Your task to perform on an android device: toggle pop-ups in chrome Image 0: 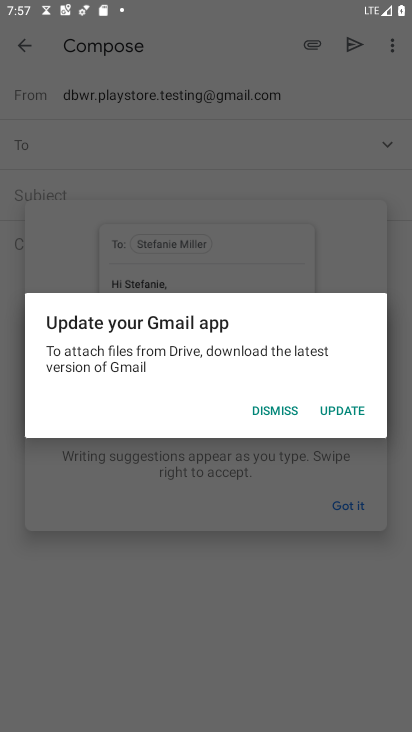
Step 0: press home button
Your task to perform on an android device: toggle pop-ups in chrome Image 1: 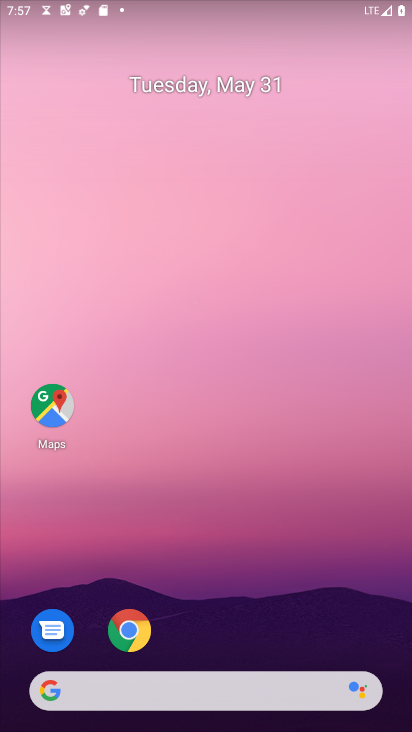
Step 1: click (129, 632)
Your task to perform on an android device: toggle pop-ups in chrome Image 2: 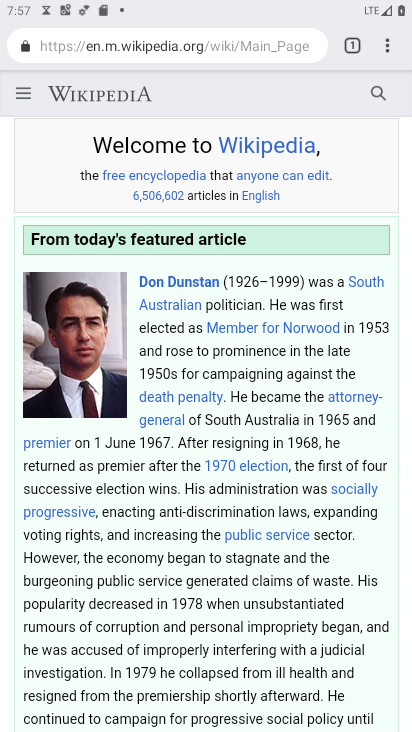
Step 2: click (387, 45)
Your task to perform on an android device: toggle pop-ups in chrome Image 3: 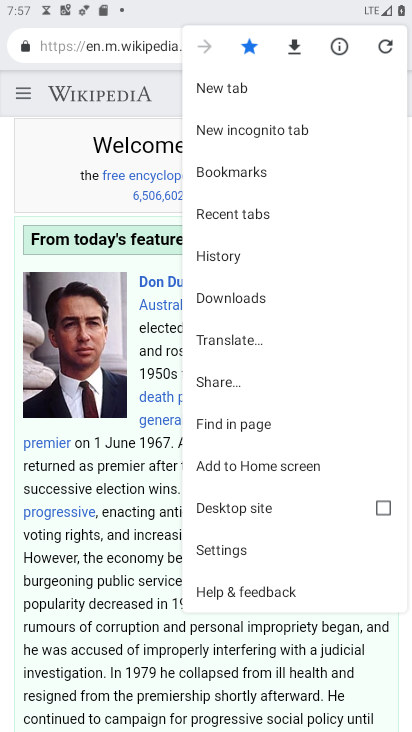
Step 3: click (238, 554)
Your task to perform on an android device: toggle pop-ups in chrome Image 4: 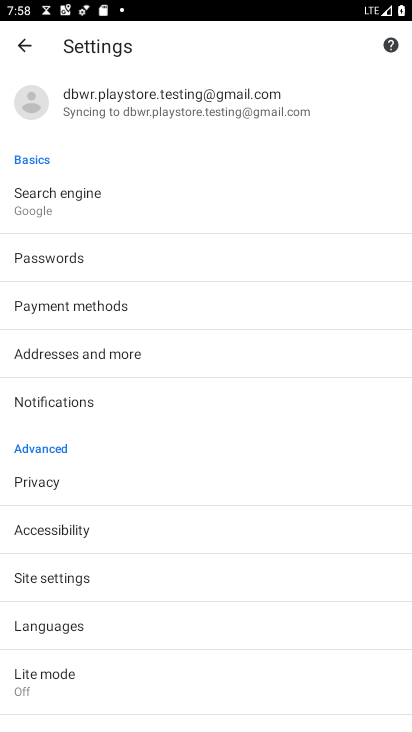
Step 4: click (66, 579)
Your task to perform on an android device: toggle pop-ups in chrome Image 5: 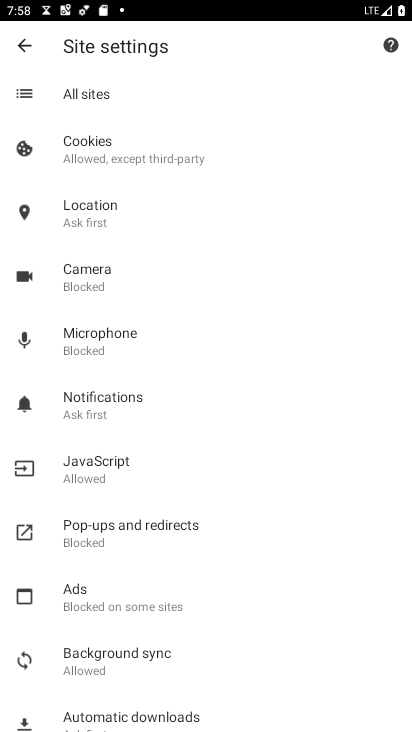
Step 5: click (104, 526)
Your task to perform on an android device: toggle pop-ups in chrome Image 6: 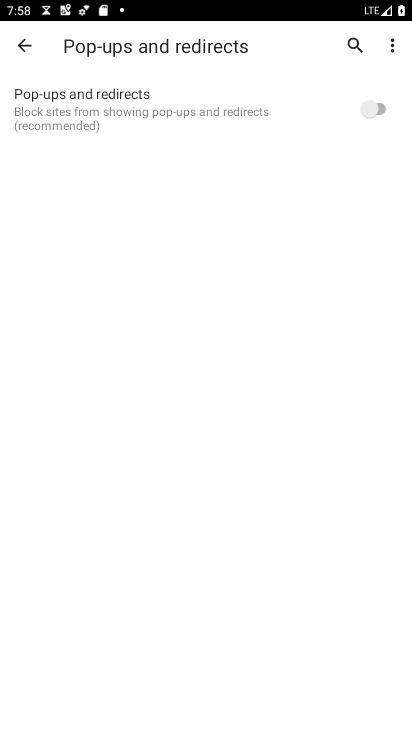
Step 6: click (376, 105)
Your task to perform on an android device: toggle pop-ups in chrome Image 7: 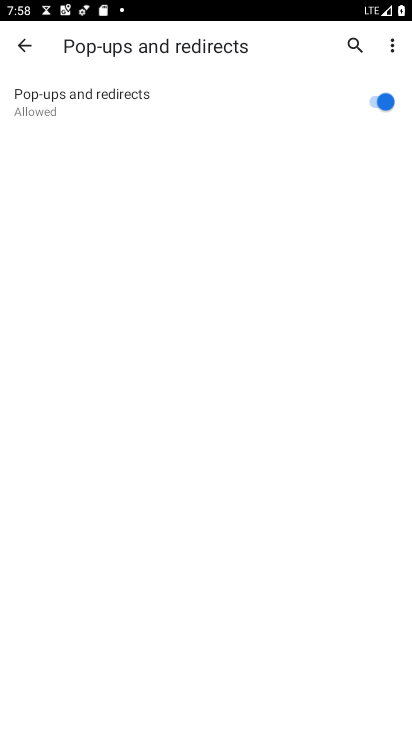
Step 7: task complete